Your task to perform on an android device: Open network settings Image 0: 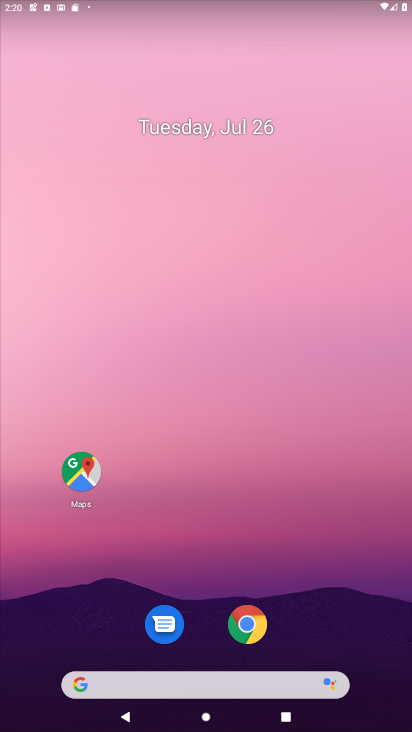
Step 0: drag from (179, 676) to (171, 39)
Your task to perform on an android device: Open network settings Image 1: 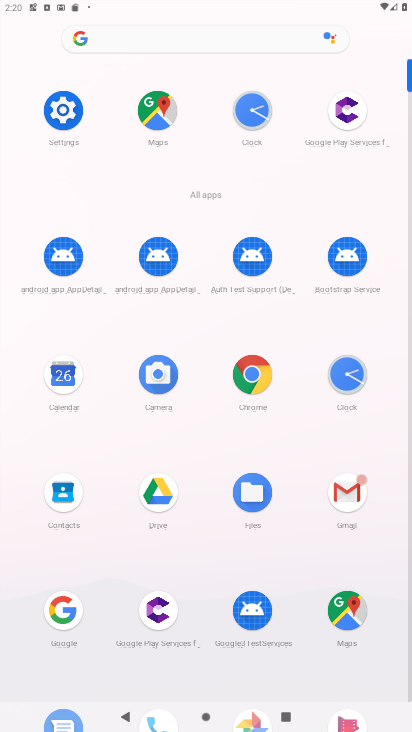
Step 1: click (67, 111)
Your task to perform on an android device: Open network settings Image 2: 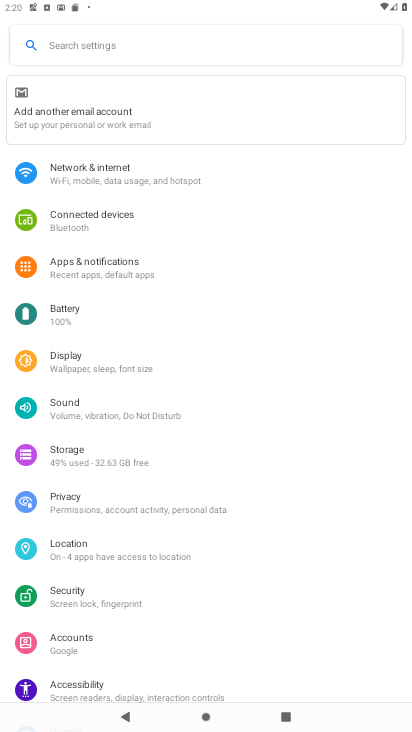
Step 2: click (75, 170)
Your task to perform on an android device: Open network settings Image 3: 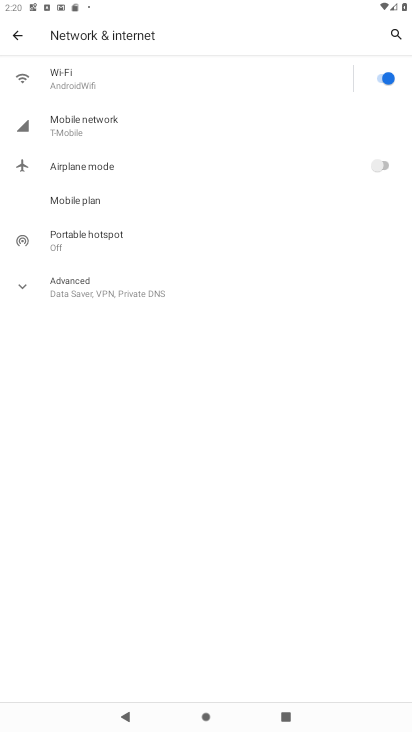
Step 3: click (83, 129)
Your task to perform on an android device: Open network settings Image 4: 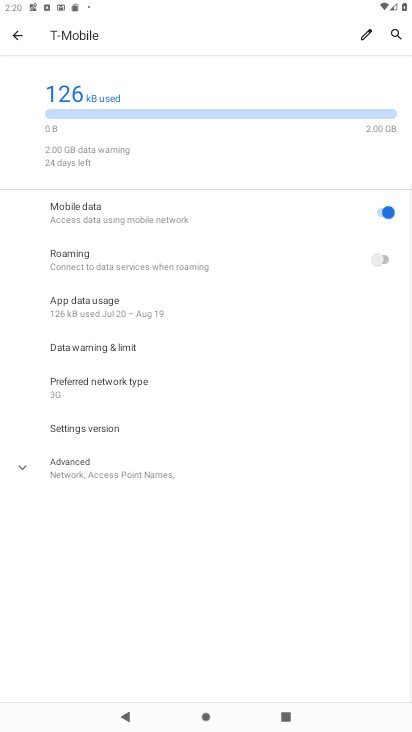
Step 4: click (104, 463)
Your task to perform on an android device: Open network settings Image 5: 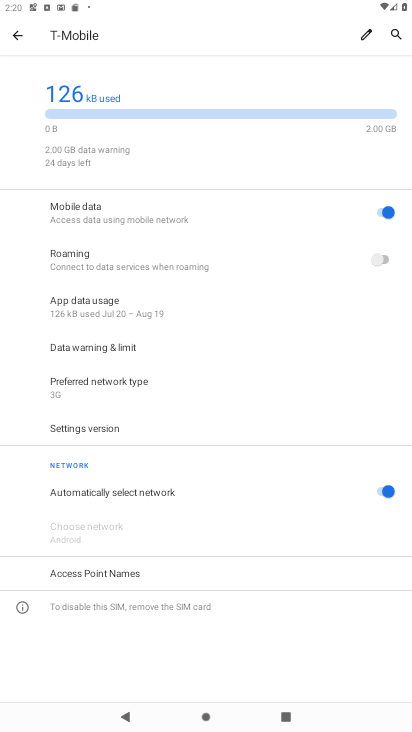
Step 5: task complete